Your task to perform on an android device: add a label to a message in the gmail app Image 0: 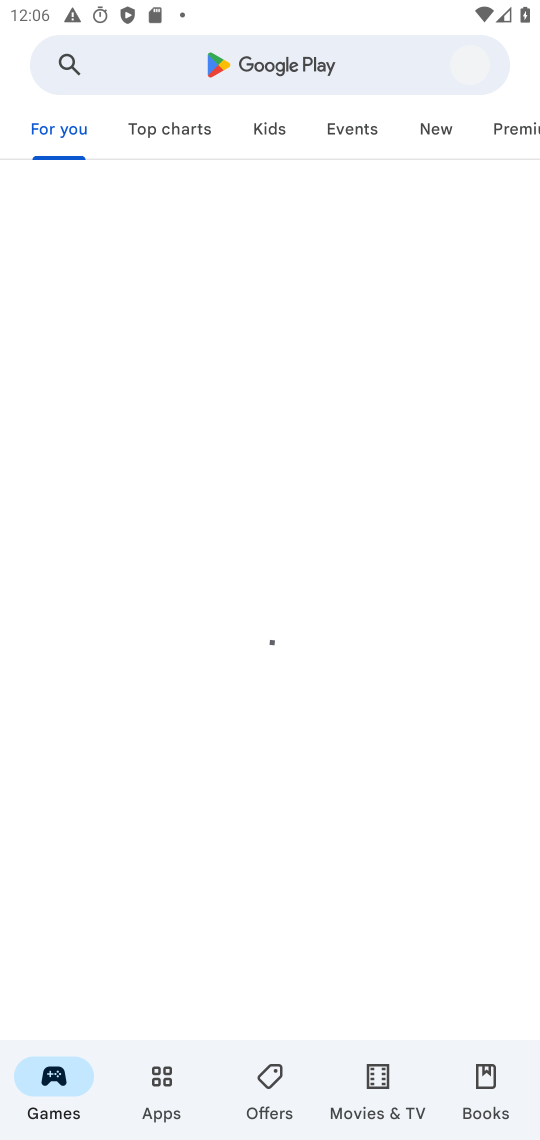
Step 0: press home button
Your task to perform on an android device: add a label to a message in the gmail app Image 1: 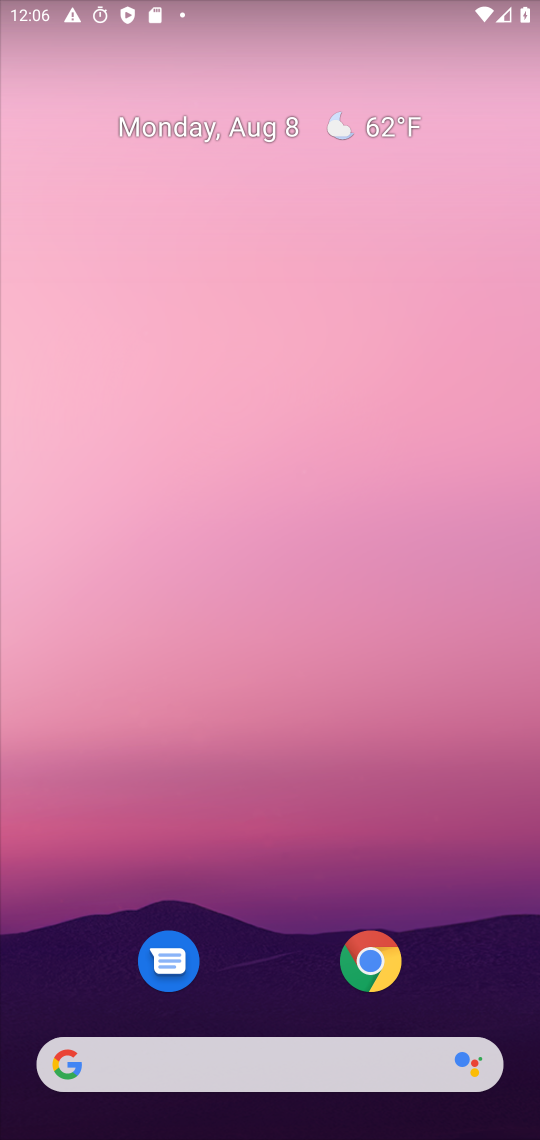
Step 1: drag from (314, 1043) to (484, 10)
Your task to perform on an android device: add a label to a message in the gmail app Image 2: 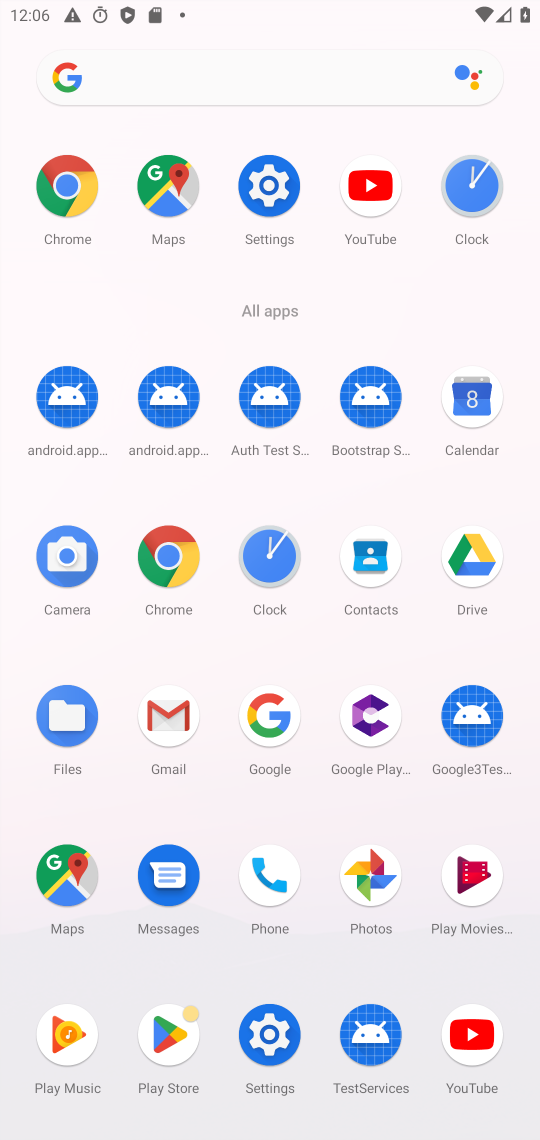
Step 2: click (171, 715)
Your task to perform on an android device: add a label to a message in the gmail app Image 3: 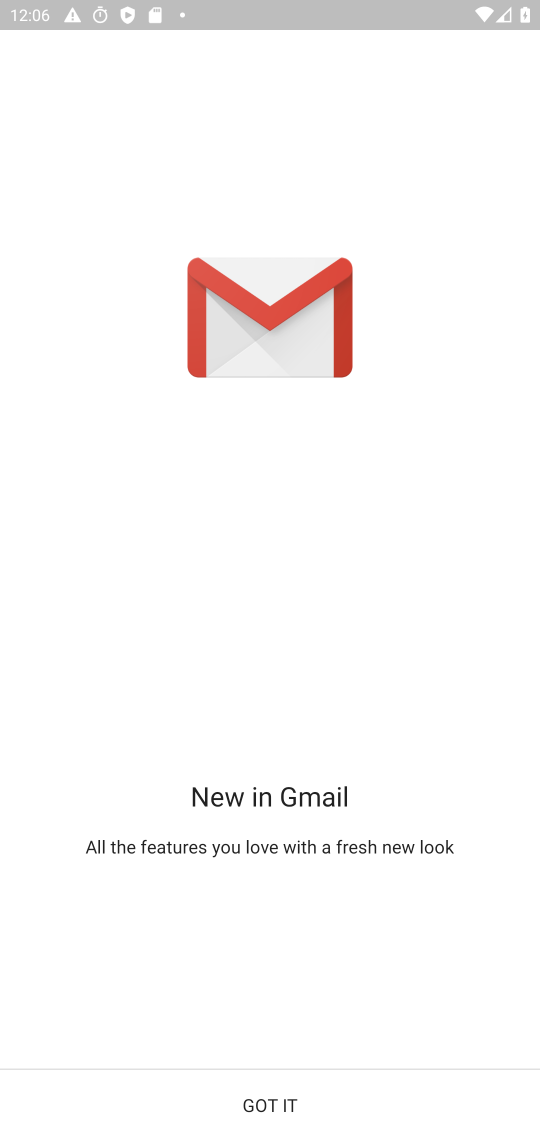
Step 3: click (266, 1106)
Your task to perform on an android device: add a label to a message in the gmail app Image 4: 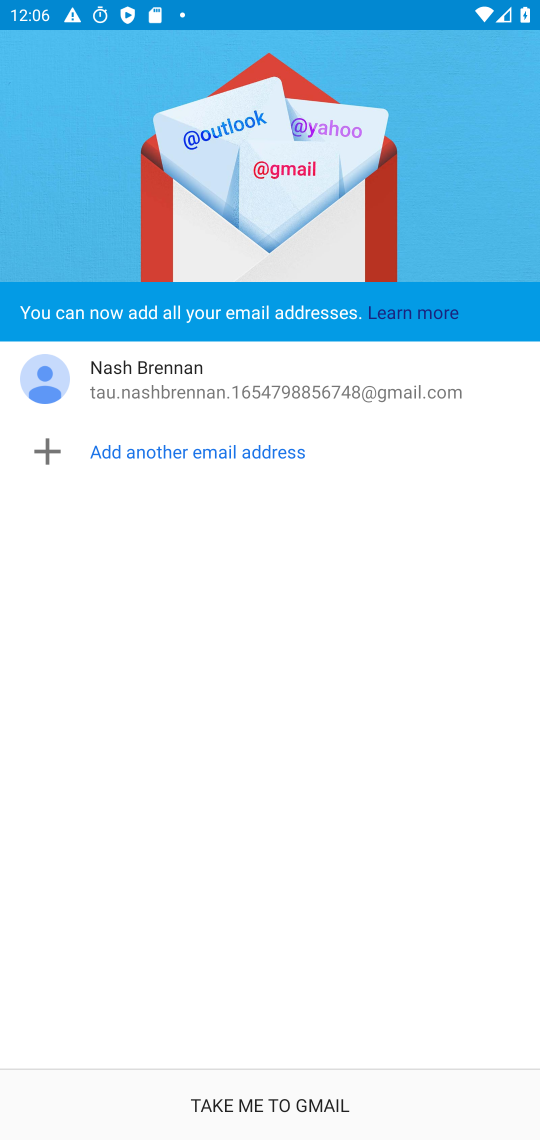
Step 4: click (356, 1090)
Your task to perform on an android device: add a label to a message in the gmail app Image 5: 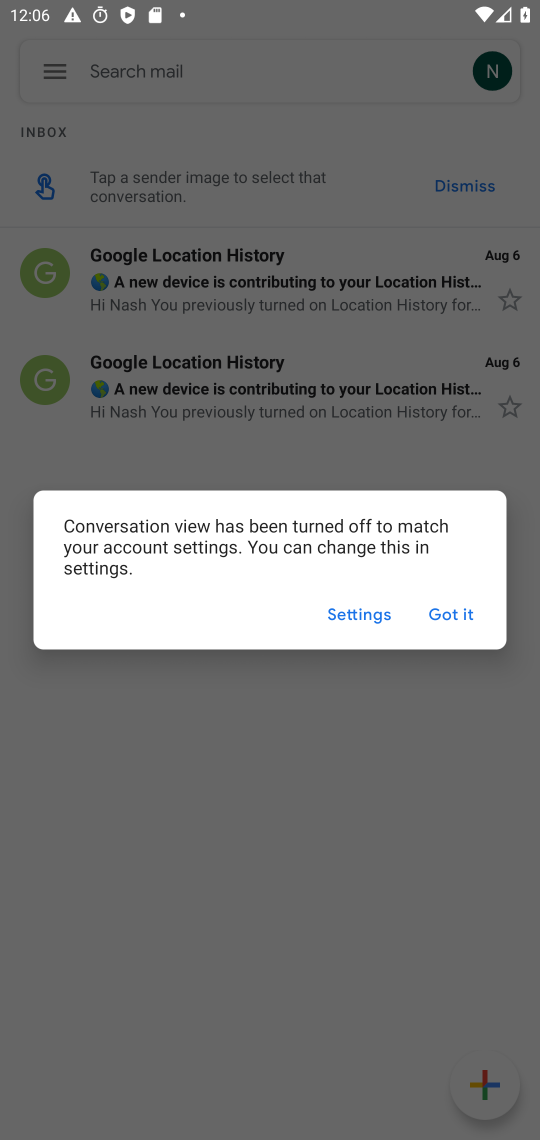
Step 5: click (455, 621)
Your task to perform on an android device: add a label to a message in the gmail app Image 6: 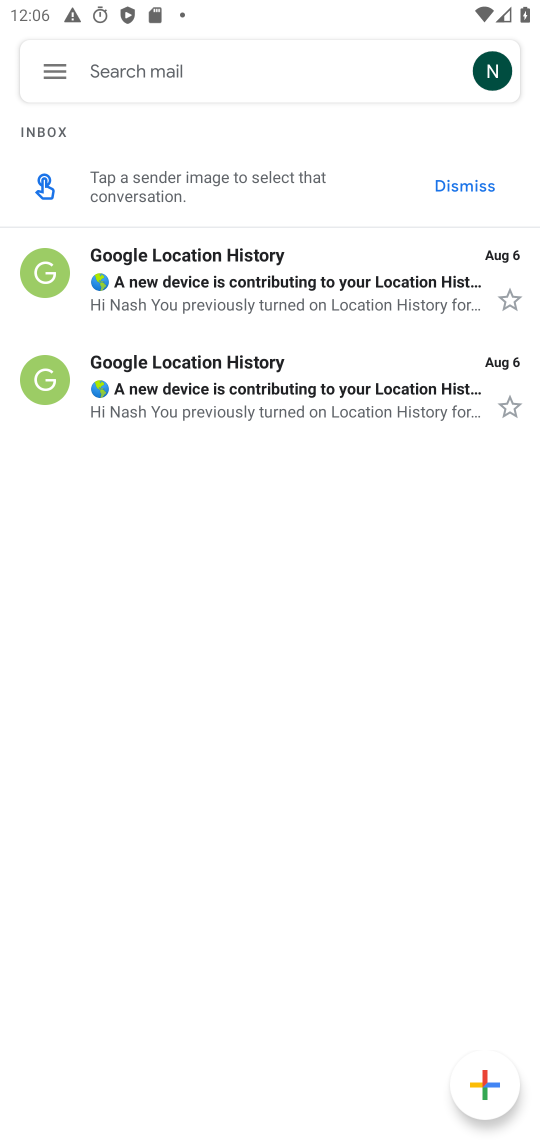
Step 6: click (394, 274)
Your task to perform on an android device: add a label to a message in the gmail app Image 7: 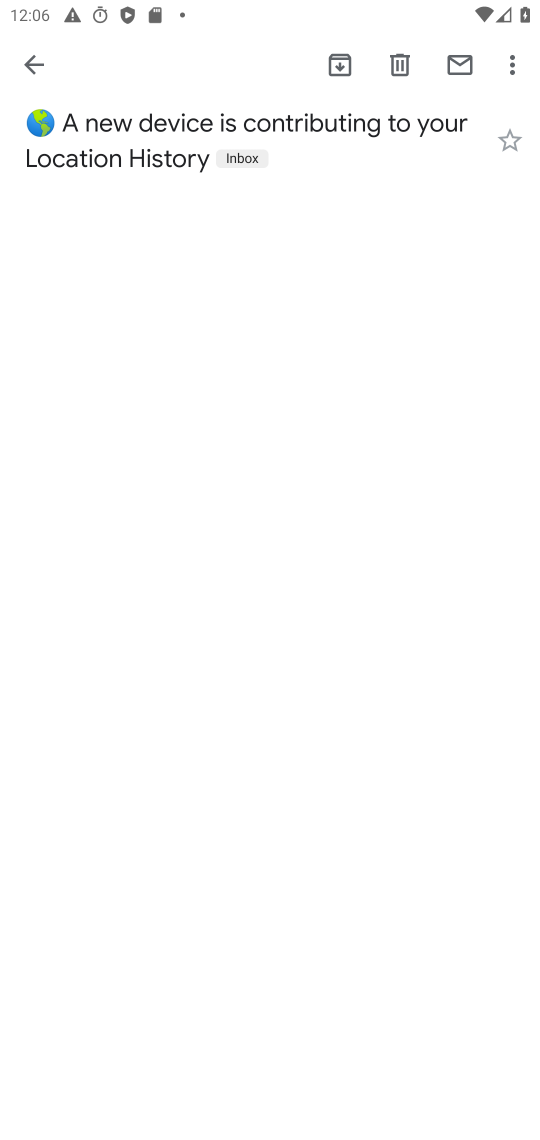
Step 7: click (508, 84)
Your task to perform on an android device: add a label to a message in the gmail app Image 8: 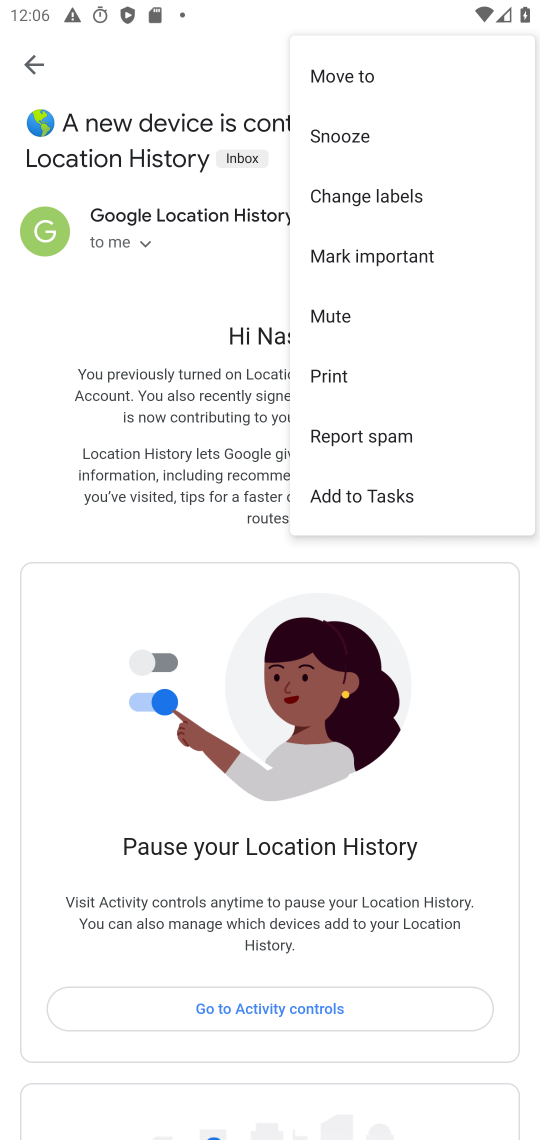
Step 8: click (402, 195)
Your task to perform on an android device: add a label to a message in the gmail app Image 9: 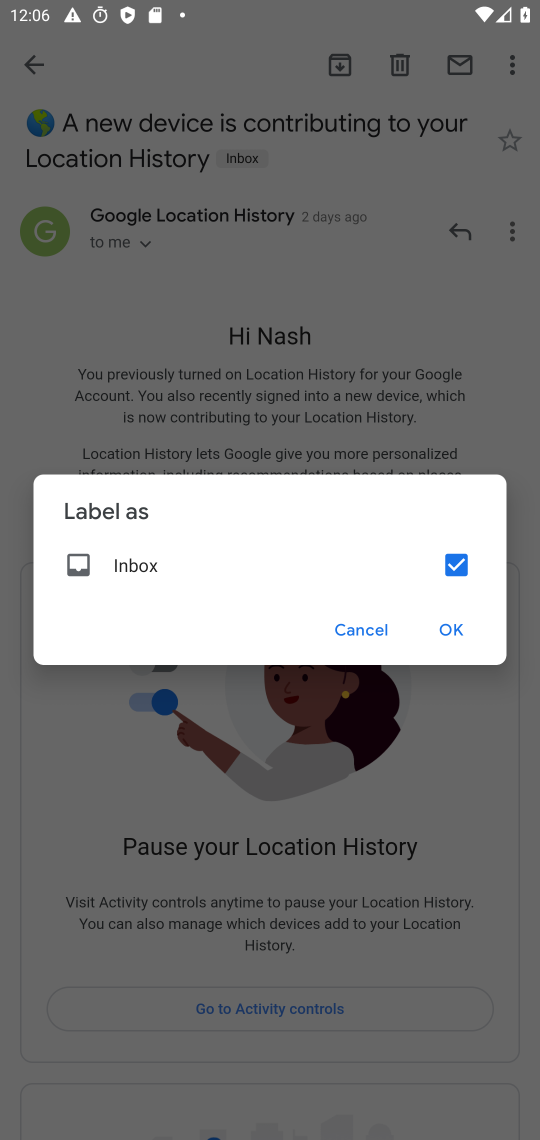
Step 9: click (444, 629)
Your task to perform on an android device: add a label to a message in the gmail app Image 10: 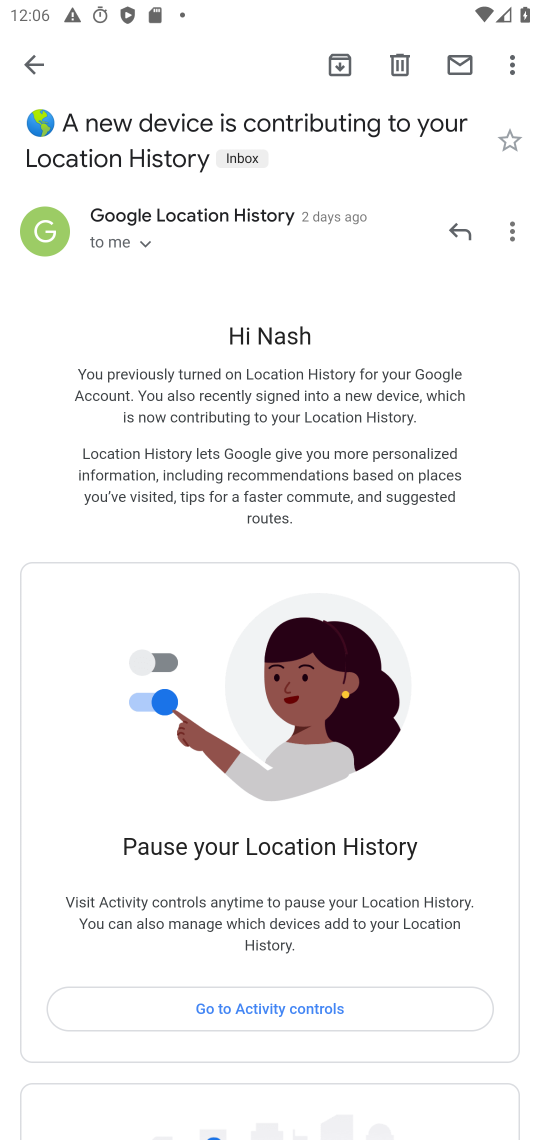
Step 10: task complete